Your task to perform on an android device: Search for Italian restaurants on Maps Image 0: 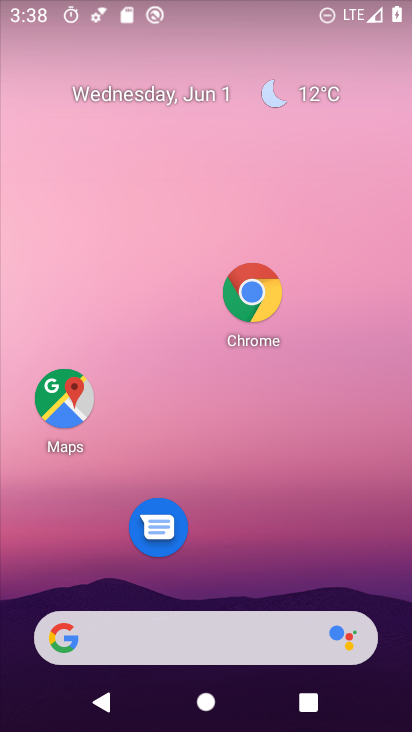
Step 0: drag from (228, 641) to (208, 214)
Your task to perform on an android device: Search for Italian restaurants on Maps Image 1: 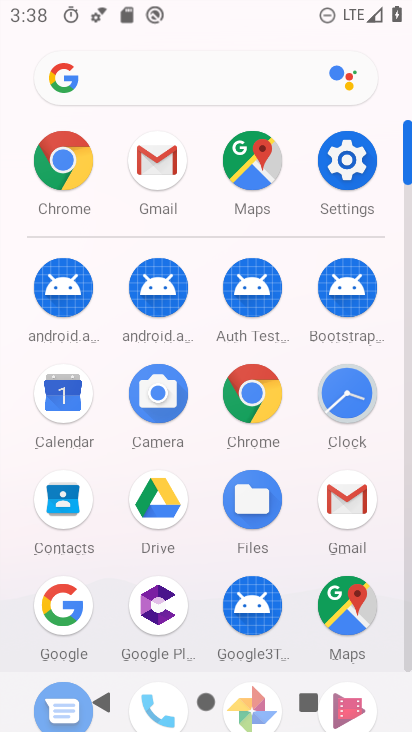
Step 1: click (346, 619)
Your task to perform on an android device: Search for Italian restaurants on Maps Image 2: 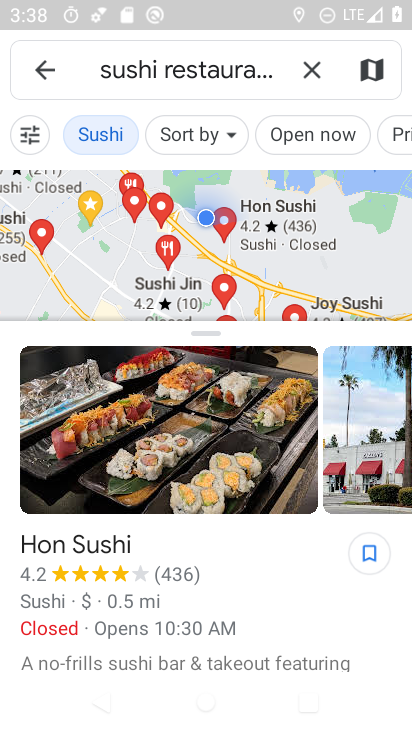
Step 2: click (306, 78)
Your task to perform on an android device: Search for Italian restaurants on Maps Image 3: 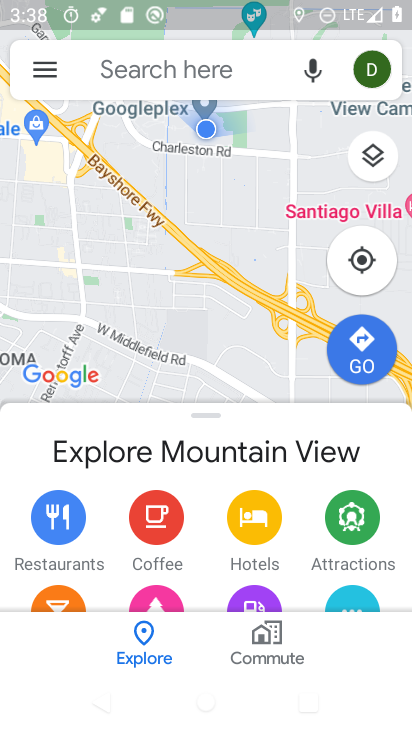
Step 3: click (228, 70)
Your task to perform on an android device: Search for Italian restaurants on Maps Image 4: 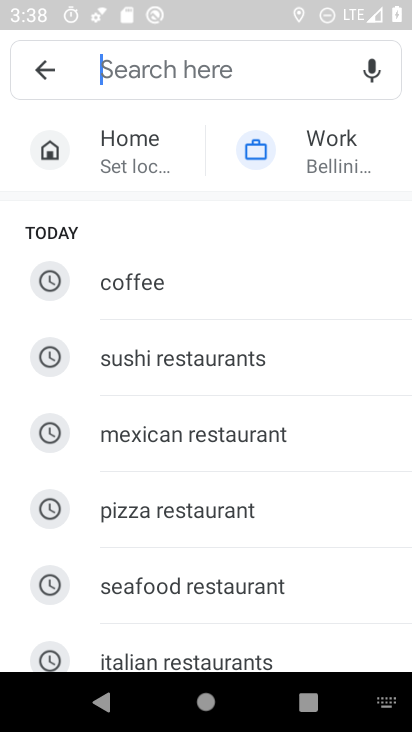
Step 4: click (190, 658)
Your task to perform on an android device: Search for Italian restaurants on Maps Image 5: 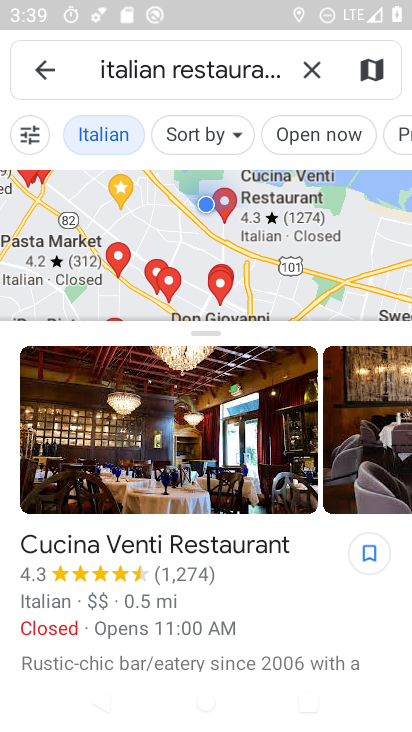
Step 5: task complete